Your task to perform on an android device: Open Google Maps and go to "Timeline" Image 0: 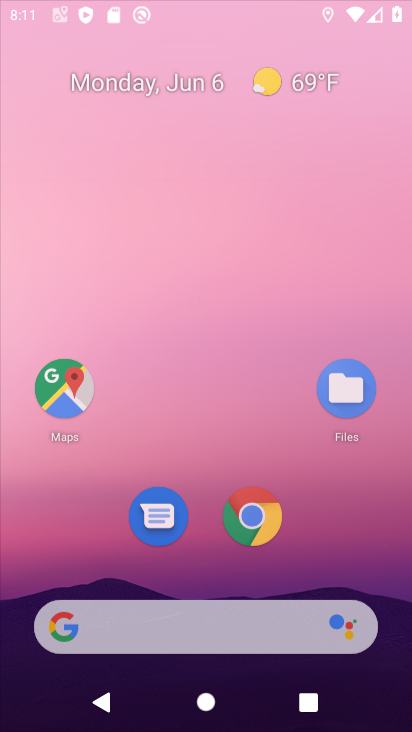
Step 0: click (163, 123)
Your task to perform on an android device: Open Google Maps and go to "Timeline" Image 1: 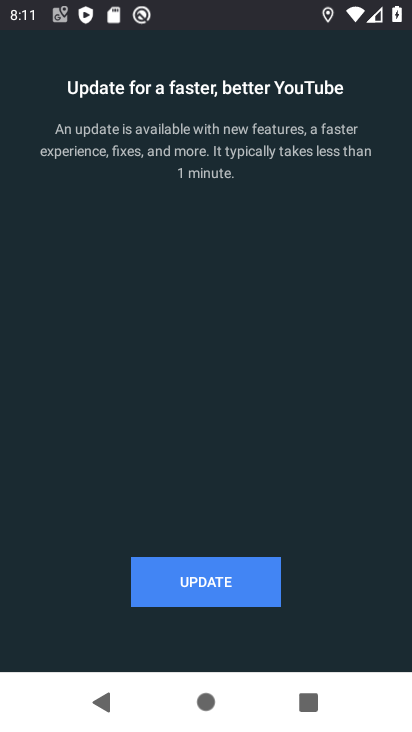
Step 1: press home button
Your task to perform on an android device: Open Google Maps and go to "Timeline" Image 2: 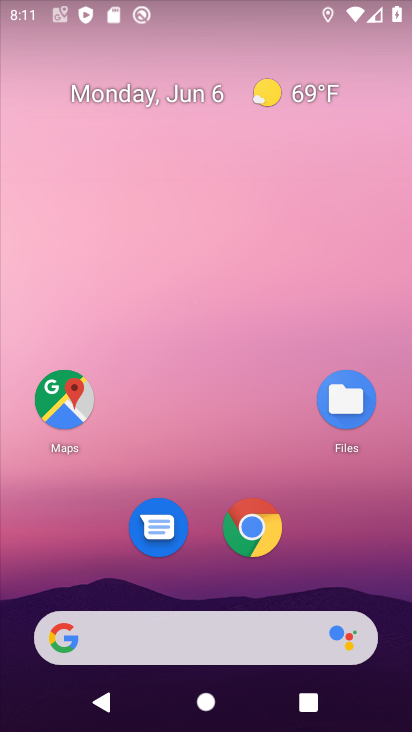
Step 2: click (64, 403)
Your task to perform on an android device: Open Google Maps and go to "Timeline" Image 3: 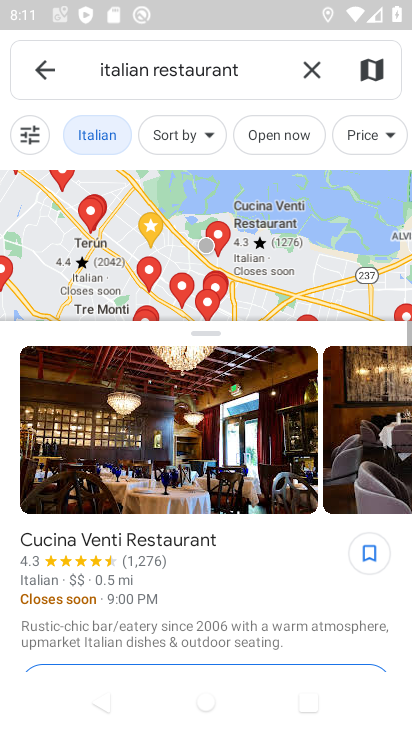
Step 3: click (311, 72)
Your task to perform on an android device: Open Google Maps and go to "Timeline" Image 4: 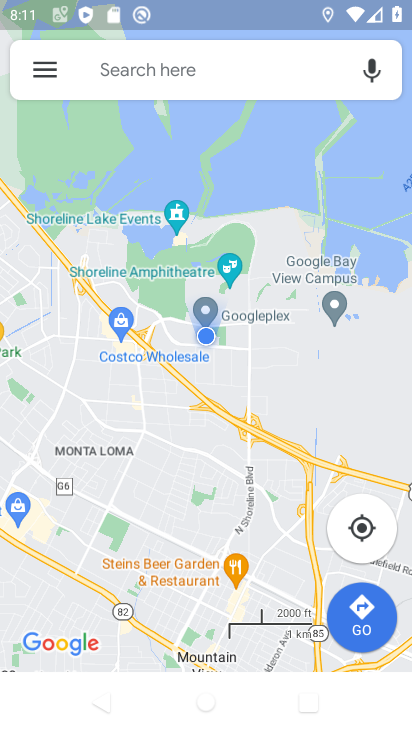
Step 4: click (40, 71)
Your task to perform on an android device: Open Google Maps and go to "Timeline" Image 5: 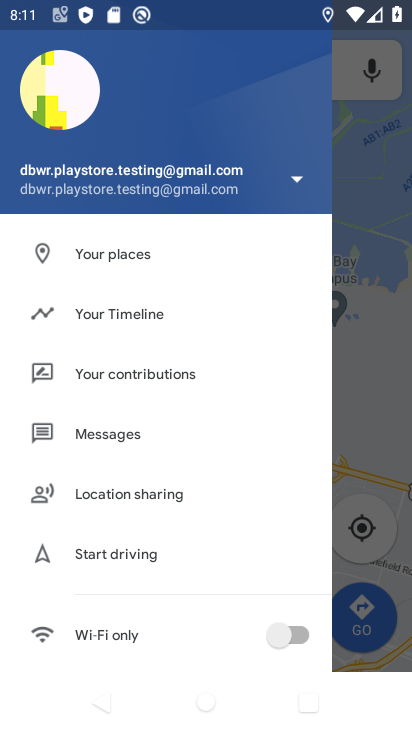
Step 5: click (111, 312)
Your task to perform on an android device: Open Google Maps and go to "Timeline" Image 6: 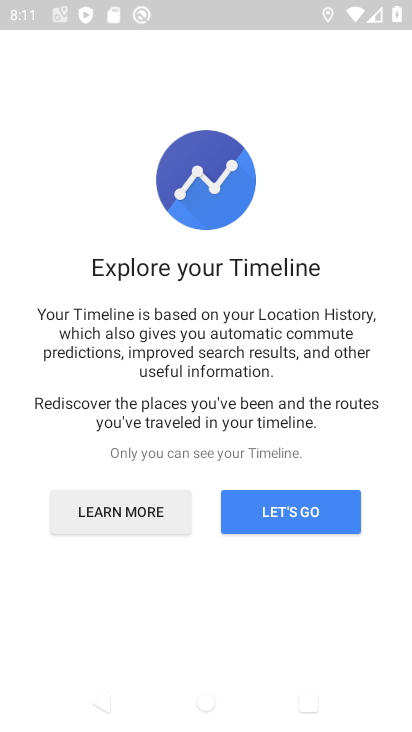
Step 6: drag from (212, 589) to (206, 329)
Your task to perform on an android device: Open Google Maps and go to "Timeline" Image 7: 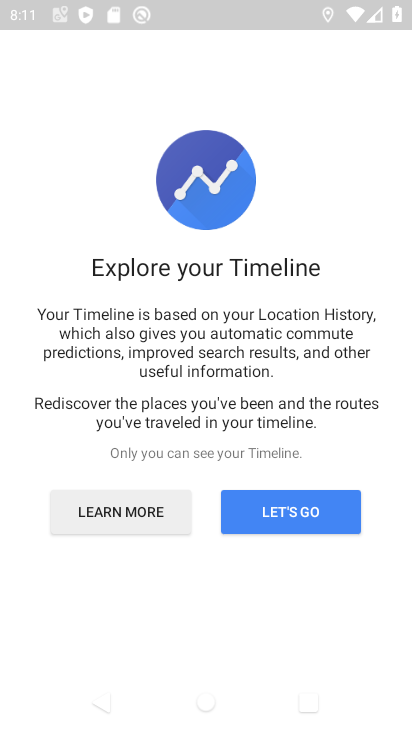
Step 7: drag from (162, 597) to (168, 285)
Your task to perform on an android device: Open Google Maps and go to "Timeline" Image 8: 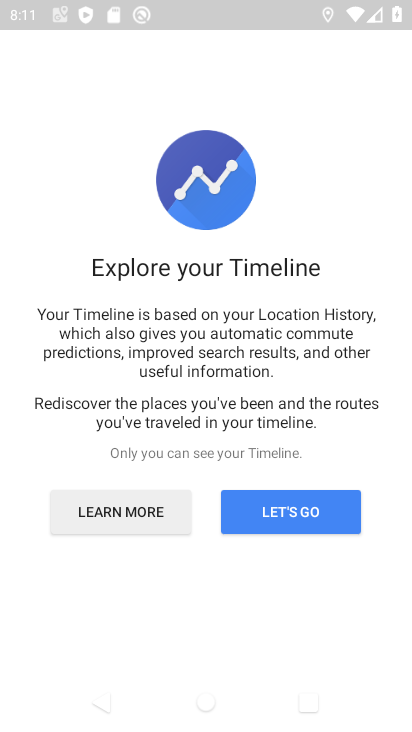
Step 8: click (233, 536)
Your task to perform on an android device: Open Google Maps and go to "Timeline" Image 9: 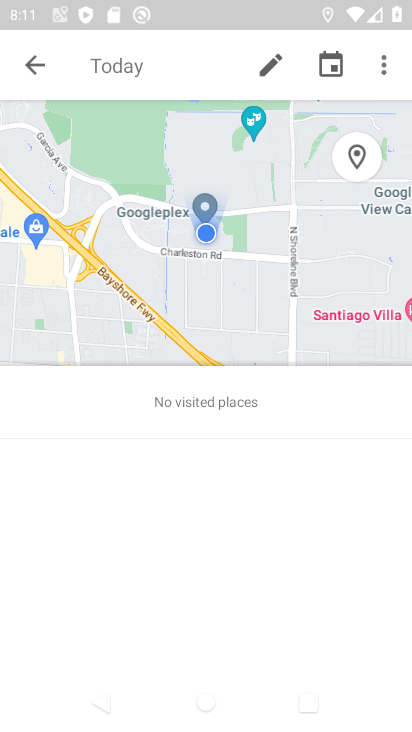
Step 9: task complete